Your task to perform on an android device: Go to network settings Image 0: 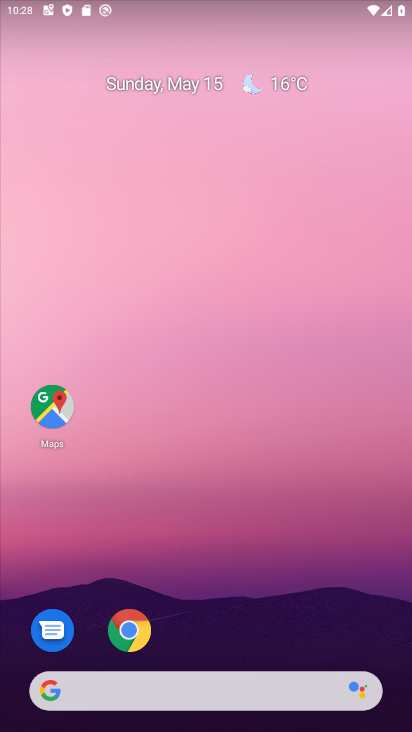
Step 0: drag from (227, 622) to (228, 94)
Your task to perform on an android device: Go to network settings Image 1: 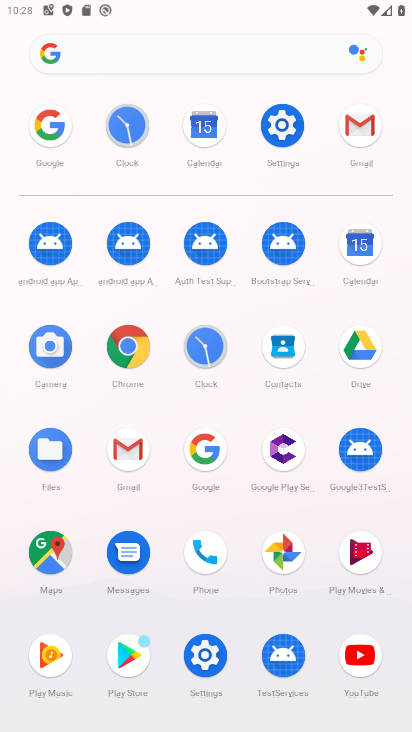
Step 1: click (266, 129)
Your task to perform on an android device: Go to network settings Image 2: 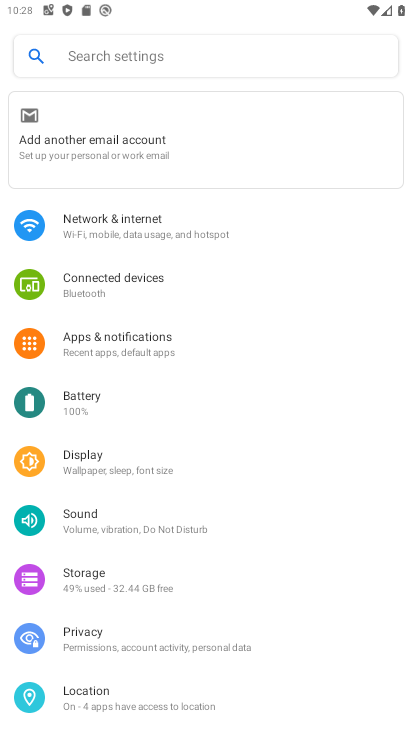
Step 2: click (140, 224)
Your task to perform on an android device: Go to network settings Image 3: 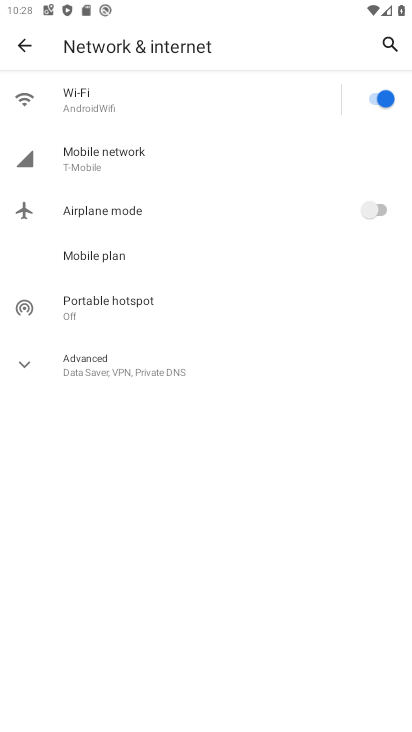
Step 3: click (100, 163)
Your task to perform on an android device: Go to network settings Image 4: 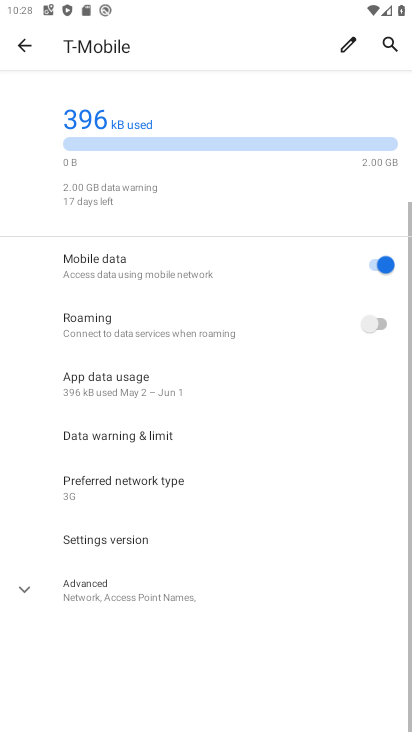
Step 4: task complete